Your task to perform on an android device: turn on the 12-hour format for clock Image 0: 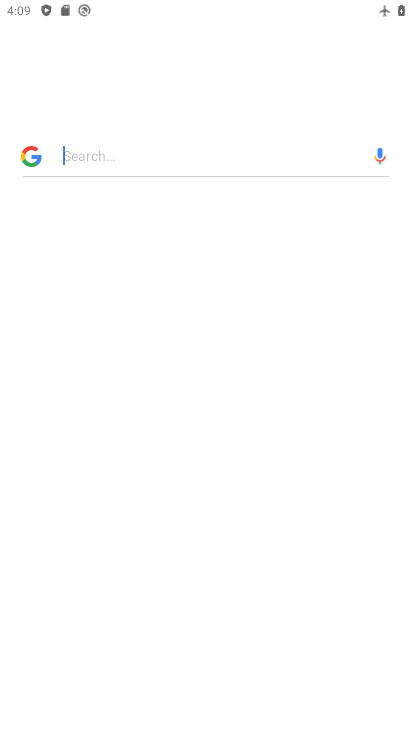
Step 0: drag from (286, 679) to (220, 231)
Your task to perform on an android device: turn on the 12-hour format for clock Image 1: 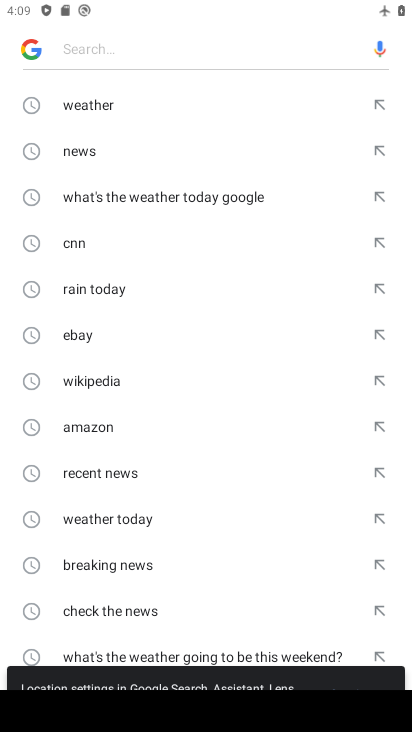
Step 1: press back button
Your task to perform on an android device: turn on the 12-hour format for clock Image 2: 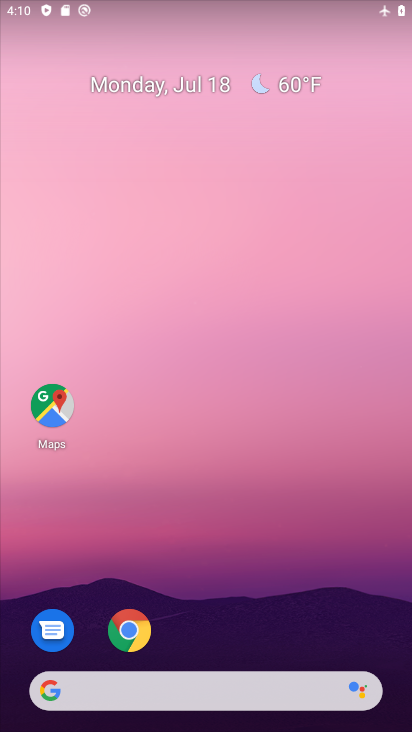
Step 2: drag from (220, 642) to (173, 213)
Your task to perform on an android device: turn on the 12-hour format for clock Image 3: 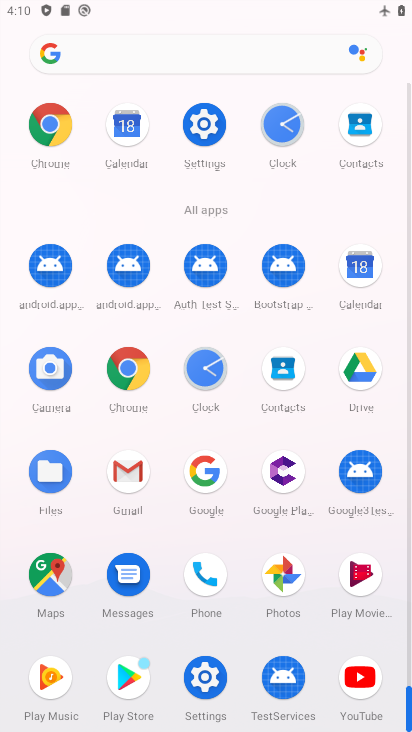
Step 3: click (190, 359)
Your task to perform on an android device: turn on the 12-hour format for clock Image 4: 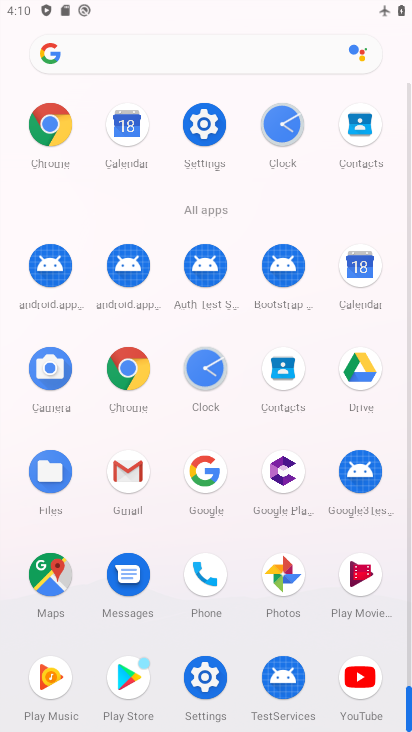
Step 4: click (192, 359)
Your task to perform on an android device: turn on the 12-hour format for clock Image 5: 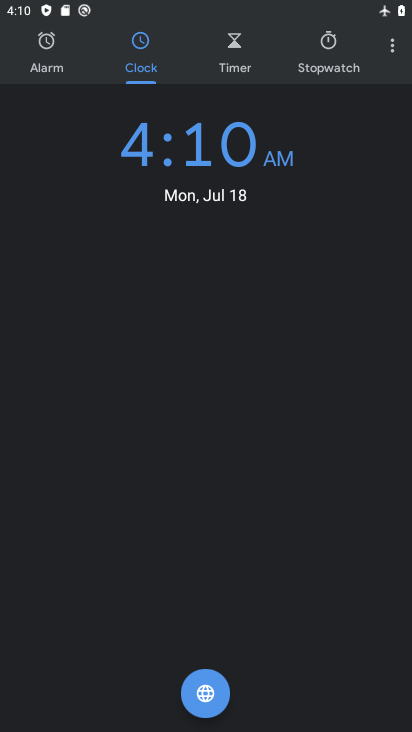
Step 5: click (388, 49)
Your task to perform on an android device: turn on the 12-hour format for clock Image 6: 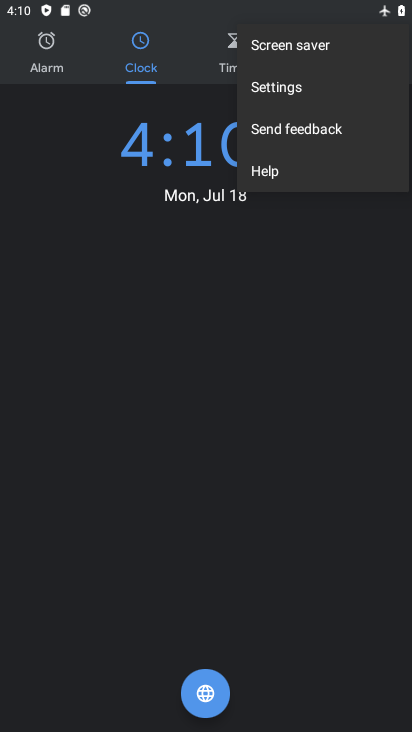
Step 6: click (300, 100)
Your task to perform on an android device: turn on the 12-hour format for clock Image 7: 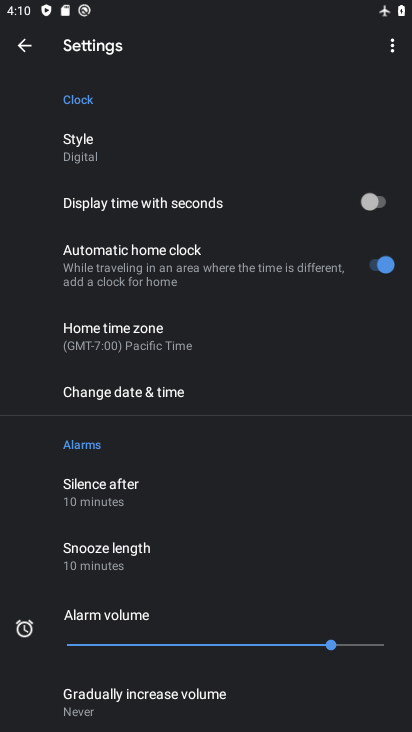
Step 7: click (134, 395)
Your task to perform on an android device: turn on the 12-hour format for clock Image 8: 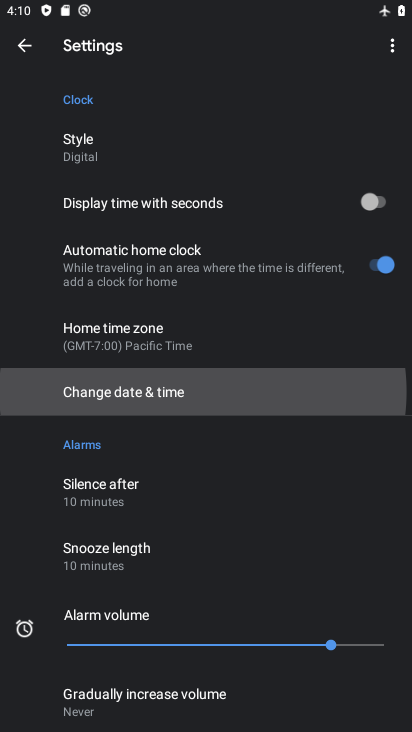
Step 8: click (132, 394)
Your task to perform on an android device: turn on the 12-hour format for clock Image 9: 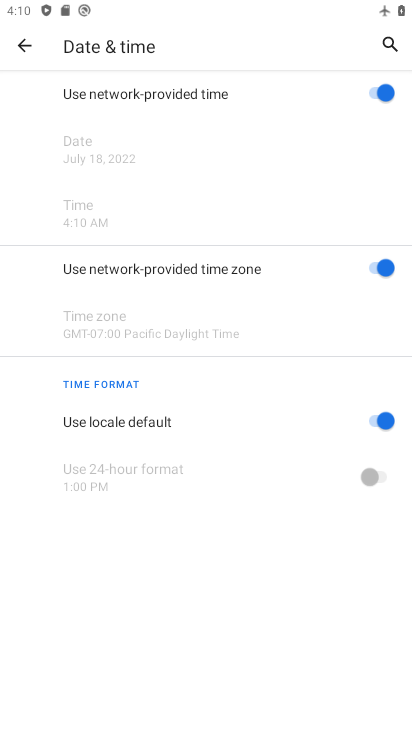
Step 9: click (386, 416)
Your task to perform on an android device: turn on the 12-hour format for clock Image 10: 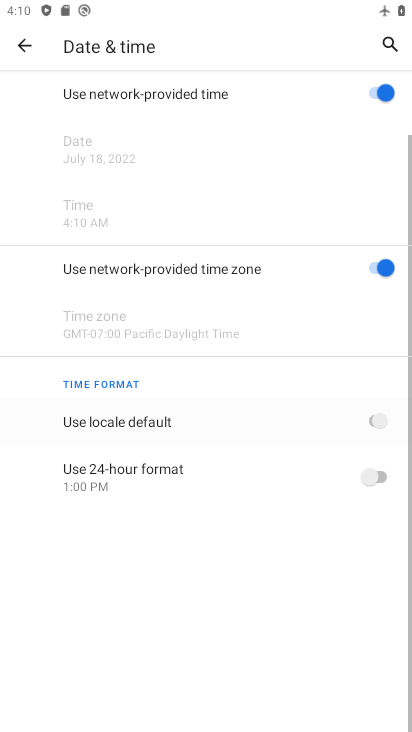
Step 10: click (368, 474)
Your task to perform on an android device: turn on the 12-hour format for clock Image 11: 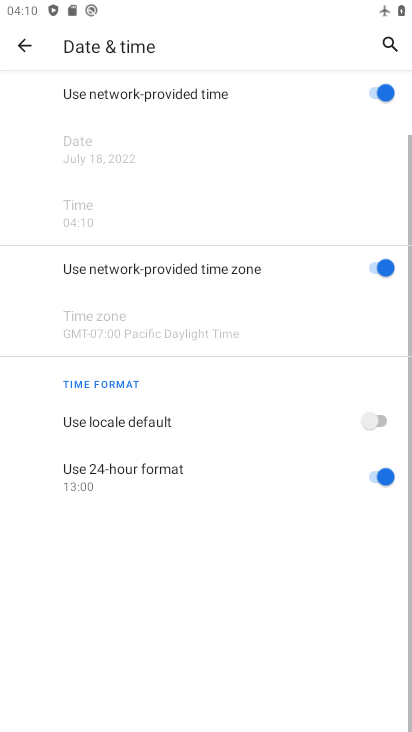
Step 11: click (378, 430)
Your task to perform on an android device: turn on the 12-hour format for clock Image 12: 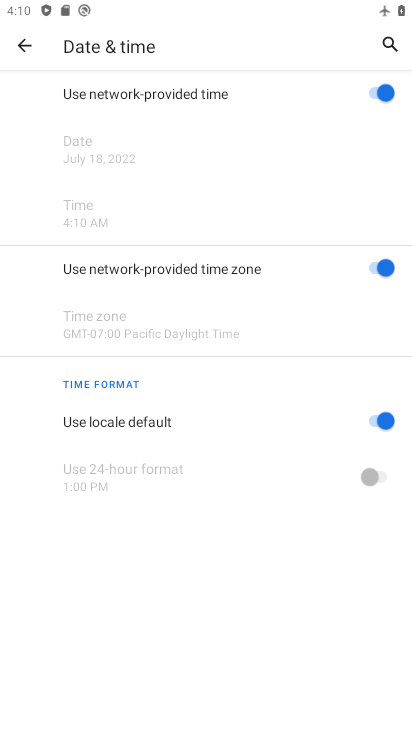
Step 12: task complete